Your task to perform on an android device: turn on location history Image 0: 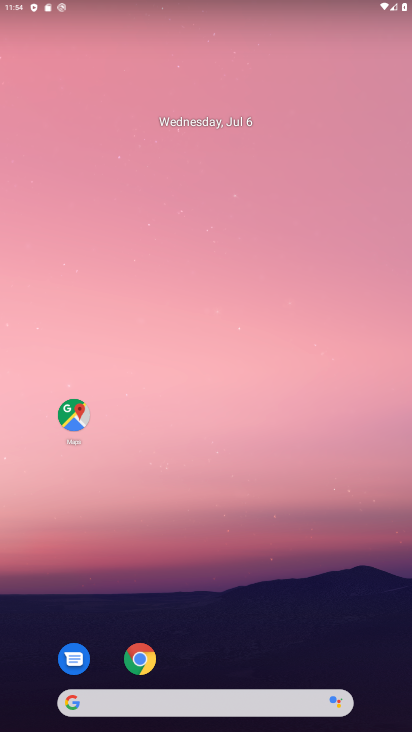
Step 0: drag from (223, 599) to (294, 87)
Your task to perform on an android device: turn on location history Image 1: 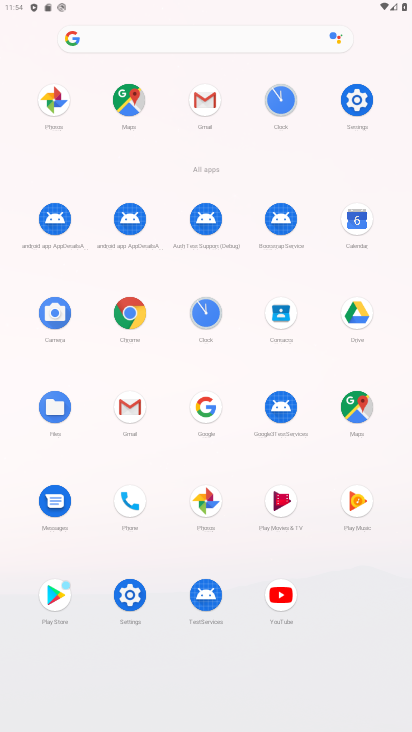
Step 1: click (363, 89)
Your task to perform on an android device: turn on location history Image 2: 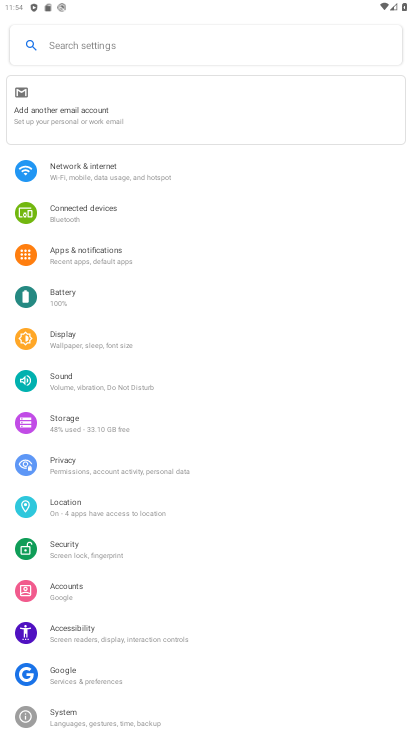
Step 2: click (74, 504)
Your task to perform on an android device: turn on location history Image 3: 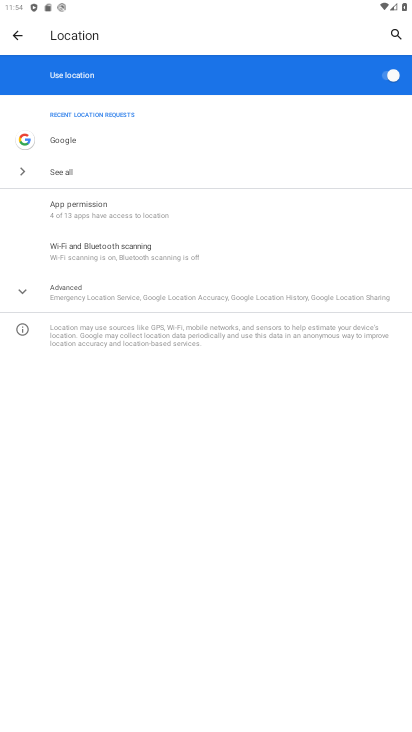
Step 3: click (140, 291)
Your task to perform on an android device: turn on location history Image 4: 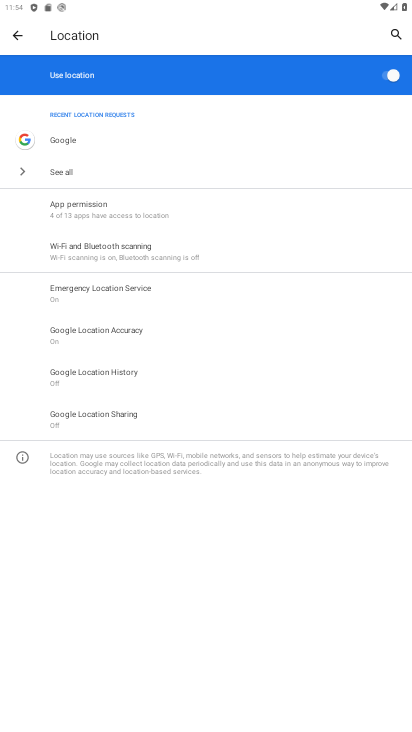
Step 4: click (114, 371)
Your task to perform on an android device: turn on location history Image 5: 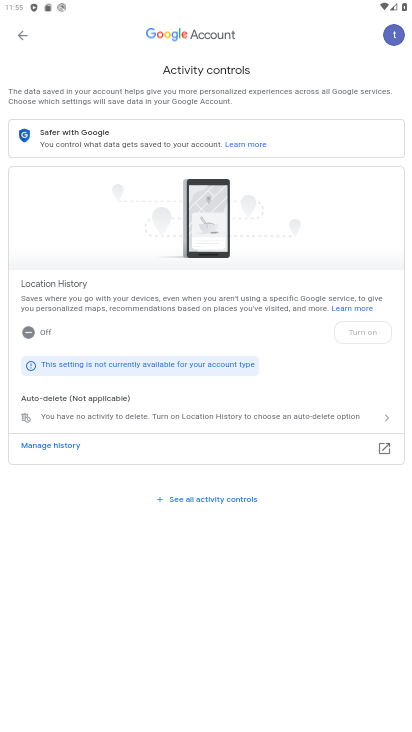
Step 5: click (16, 29)
Your task to perform on an android device: turn on location history Image 6: 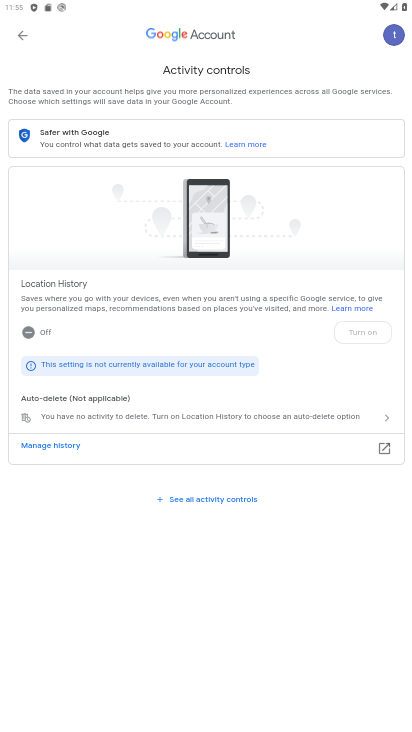
Step 6: click (21, 30)
Your task to perform on an android device: turn on location history Image 7: 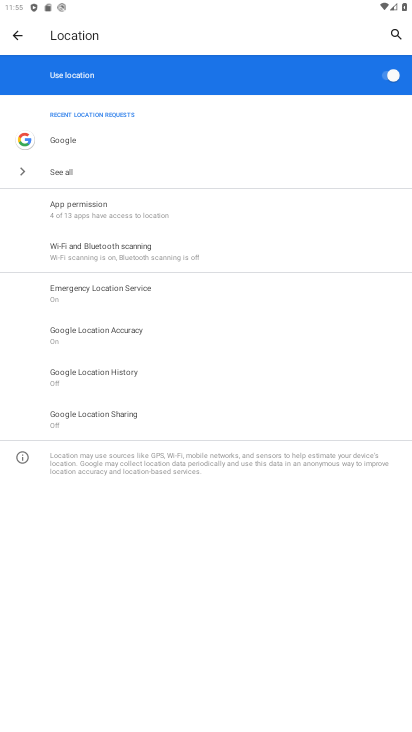
Step 7: click (111, 378)
Your task to perform on an android device: turn on location history Image 8: 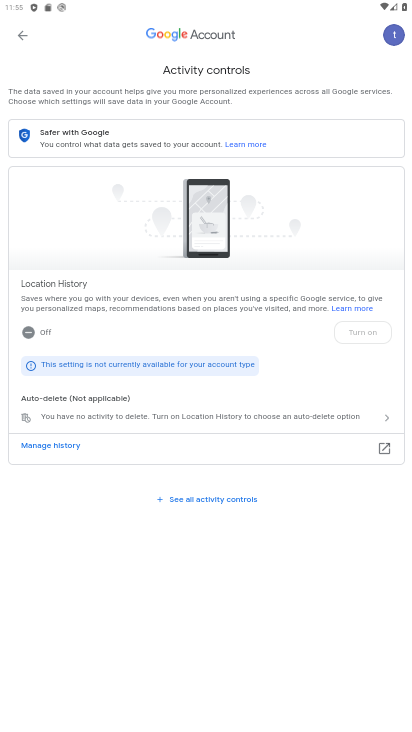
Step 8: click (358, 335)
Your task to perform on an android device: turn on location history Image 9: 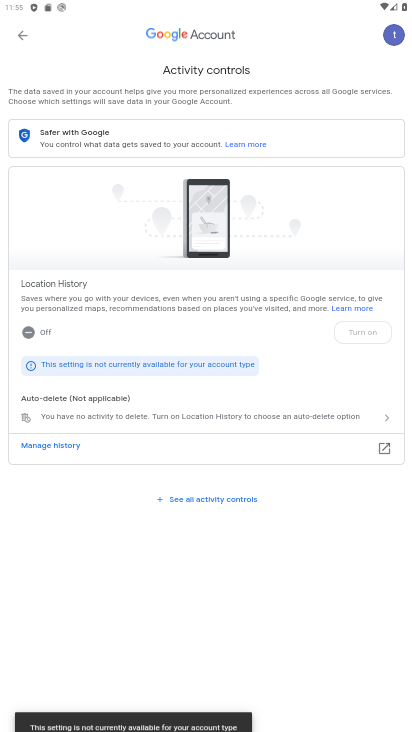
Step 9: task complete